Your task to perform on an android device: toggle improve location accuracy Image 0: 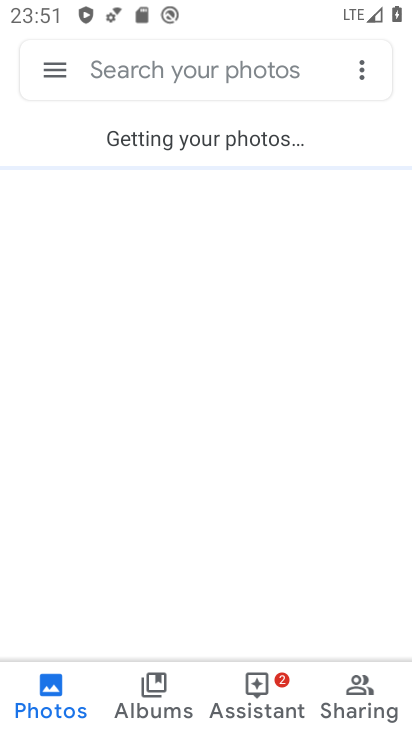
Step 0: press home button
Your task to perform on an android device: toggle improve location accuracy Image 1: 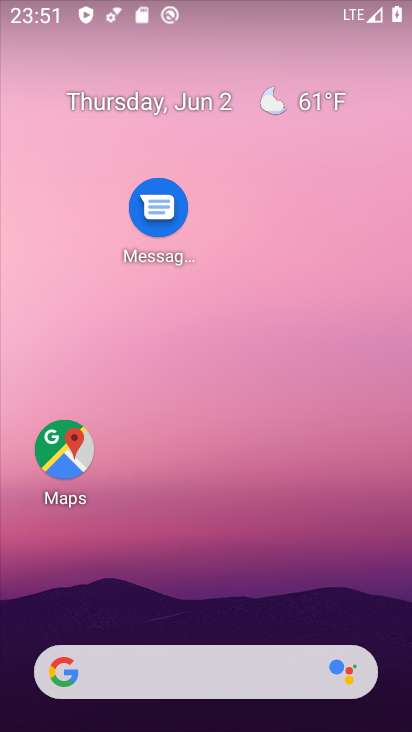
Step 1: drag from (213, 632) to (287, 33)
Your task to perform on an android device: toggle improve location accuracy Image 2: 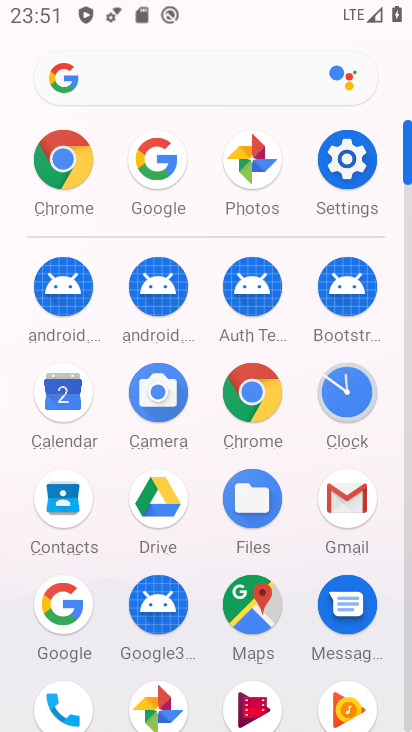
Step 2: click (346, 155)
Your task to perform on an android device: toggle improve location accuracy Image 3: 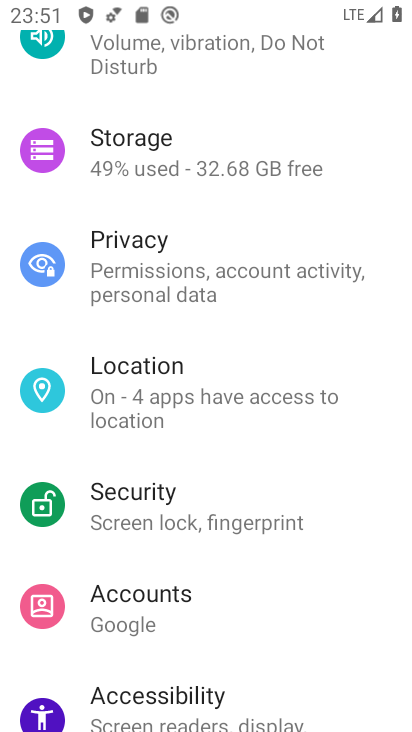
Step 3: click (168, 398)
Your task to perform on an android device: toggle improve location accuracy Image 4: 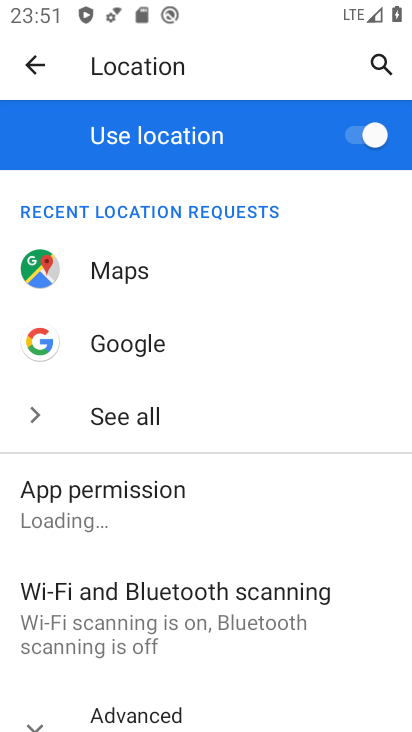
Step 4: drag from (236, 595) to (237, 126)
Your task to perform on an android device: toggle improve location accuracy Image 5: 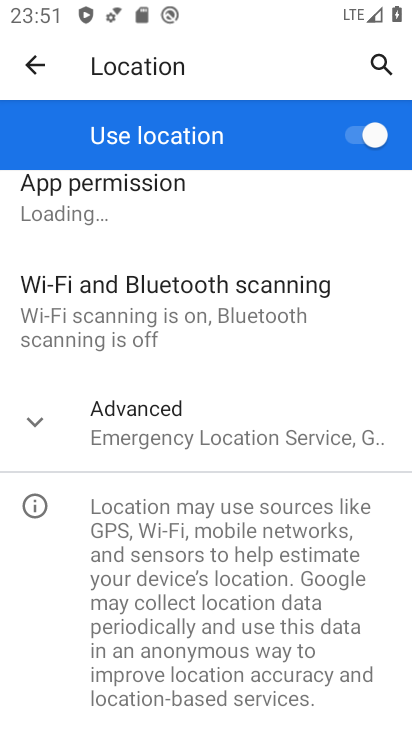
Step 5: click (189, 427)
Your task to perform on an android device: toggle improve location accuracy Image 6: 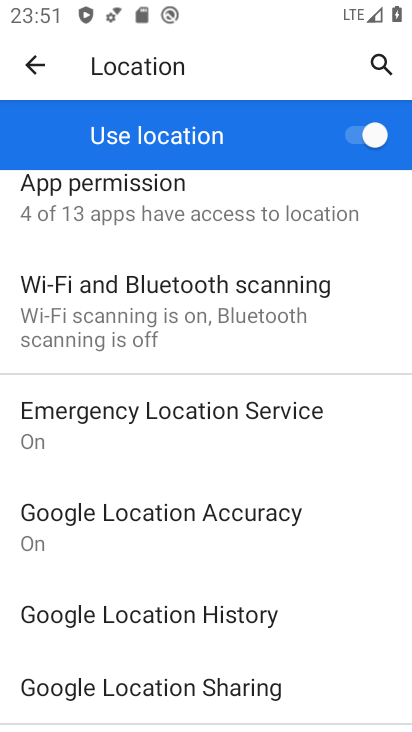
Step 6: click (253, 544)
Your task to perform on an android device: toggle improve location accuracy Image 7: 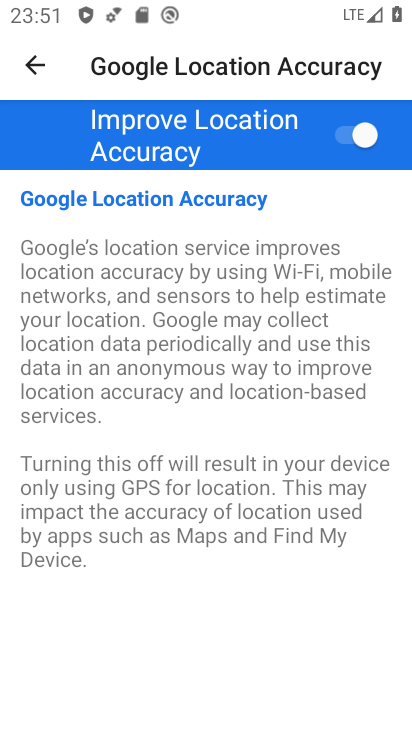
Step 7: click (328, 142)
Your task to perform on an android device: toggle improve location accuracy Image 8: 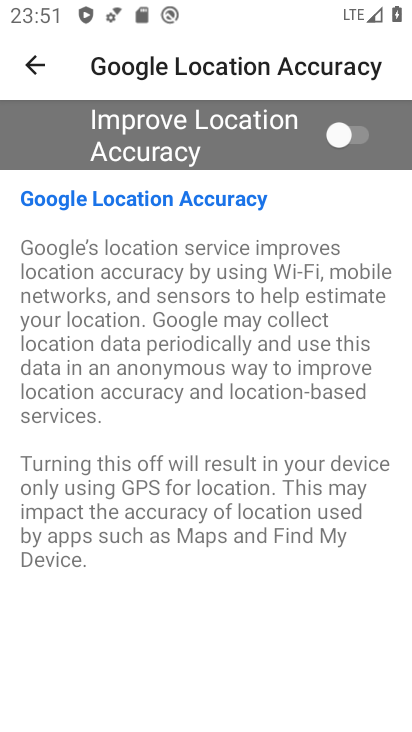
Step 8: task complete